Your task to perform on an android device: Show the shopping cart on newegg.com. Add beats solo 3 to the cart on newegg.com, then select checkout. Image 0: 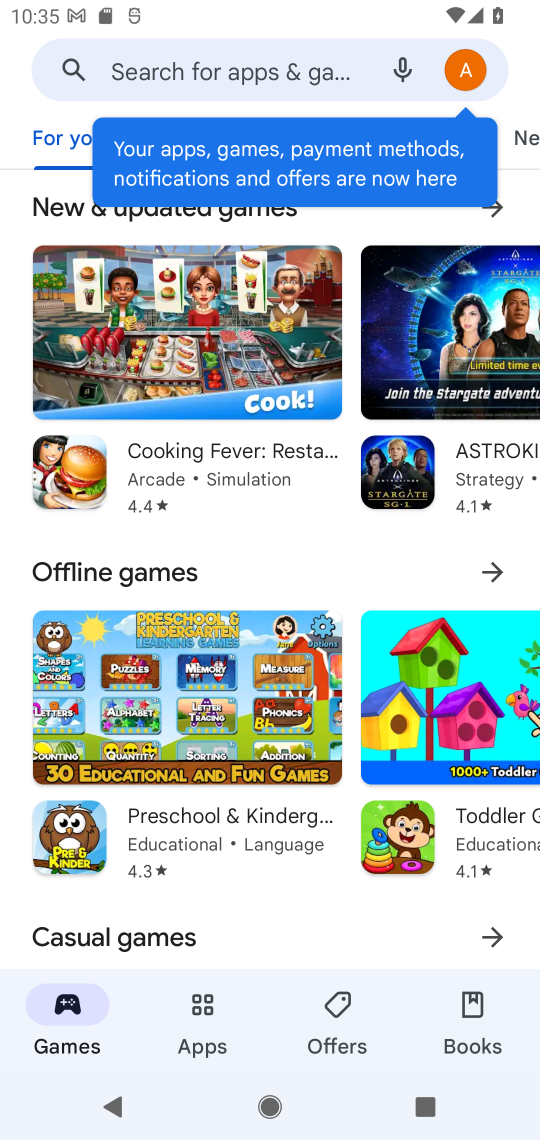
Step 0: press home button
Your task to perform on an android device: Show the shopping cart on newegg.com. Add beats solo 3 to the cart on newegg.com, then select checkout. Image 1: 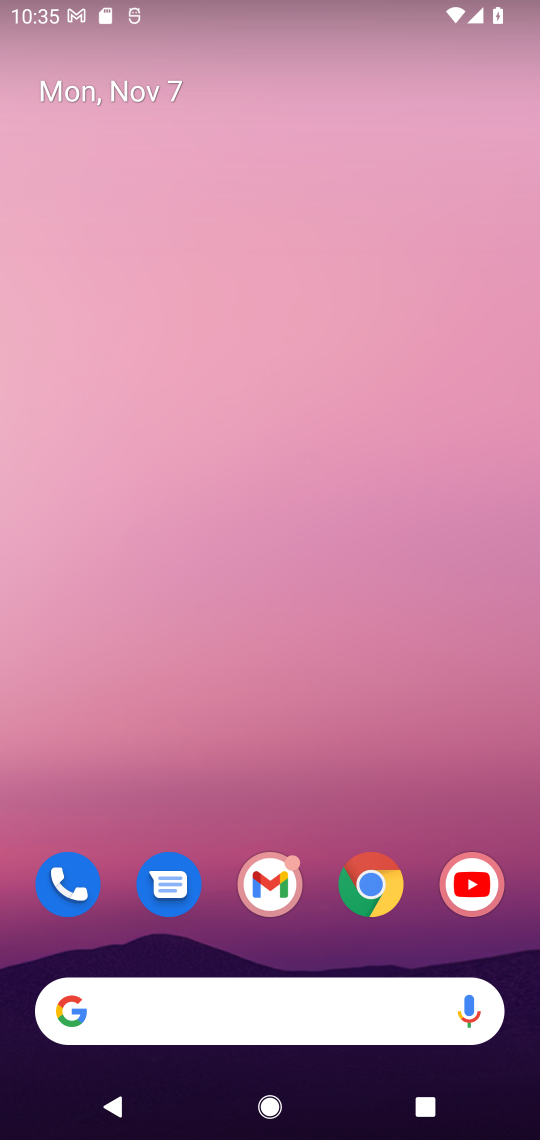
Step 1: click (380, 875)
Your task to perform on an android device: Show the shopping cart on newegg.com. Add beats solo 3 to the cart on newegg.com, then select checkout. Image 2: 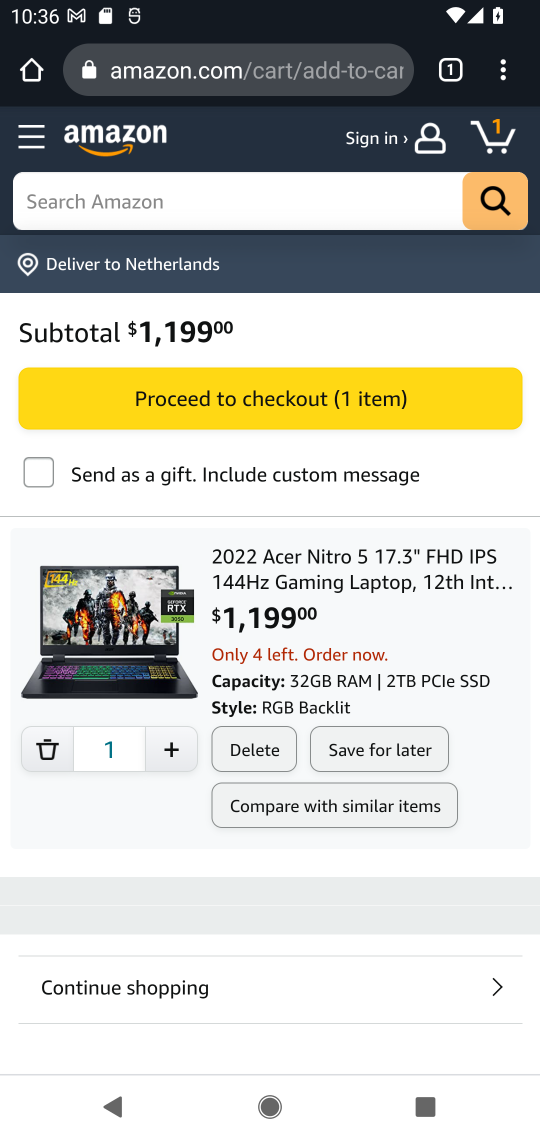
Step 2: click (37, 71)
Your task to perform on an android device: Show the shopping cart on newegg.com. Add beats solo 3 to the cart on newegg.com, then select checkout. Image 3: 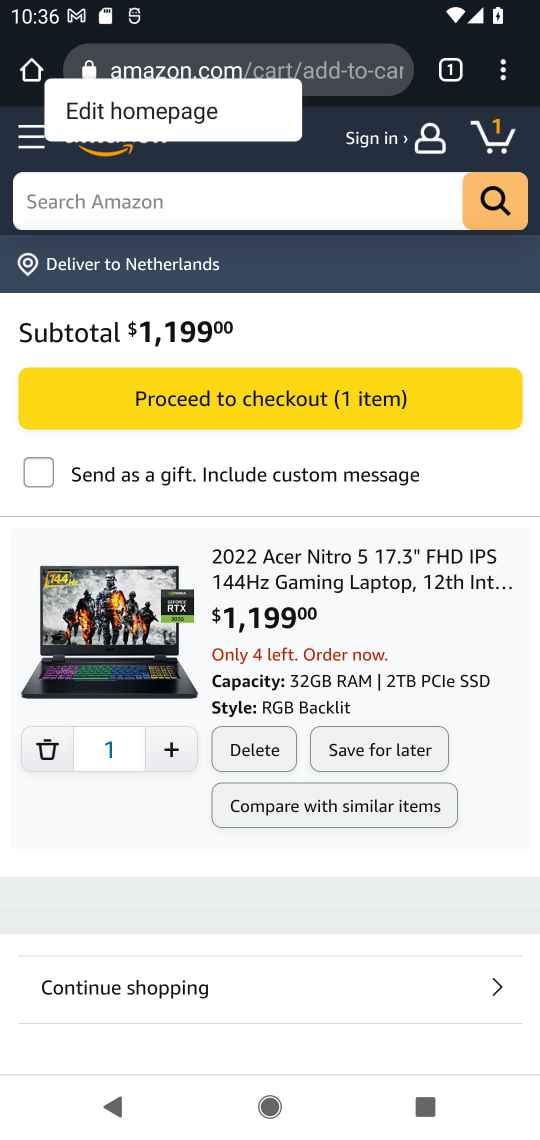
Step 3: click (154, 60)
Your task to perform on an android device: Show the shopping cart on newegg.com. Add beats solo 3 to the cart on newegg.com, then select checkout. Image 4: 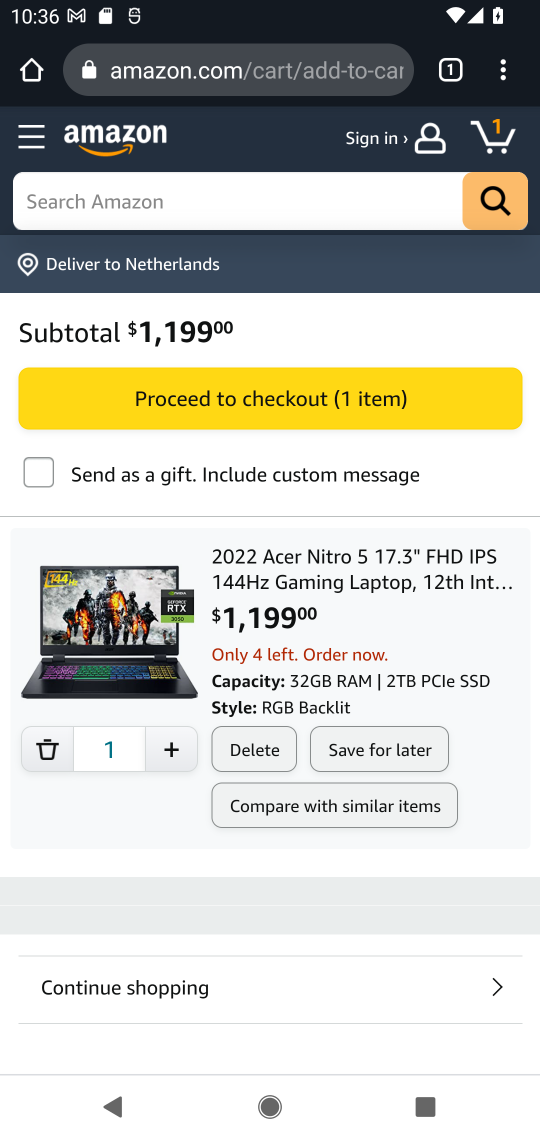
Step 4: click (155, 59)
Your task to perform on an android device: Show the shopping cart on newegg.com. Add beats solo 3 to the cart on newegg.com, then select checkout. Image 5: 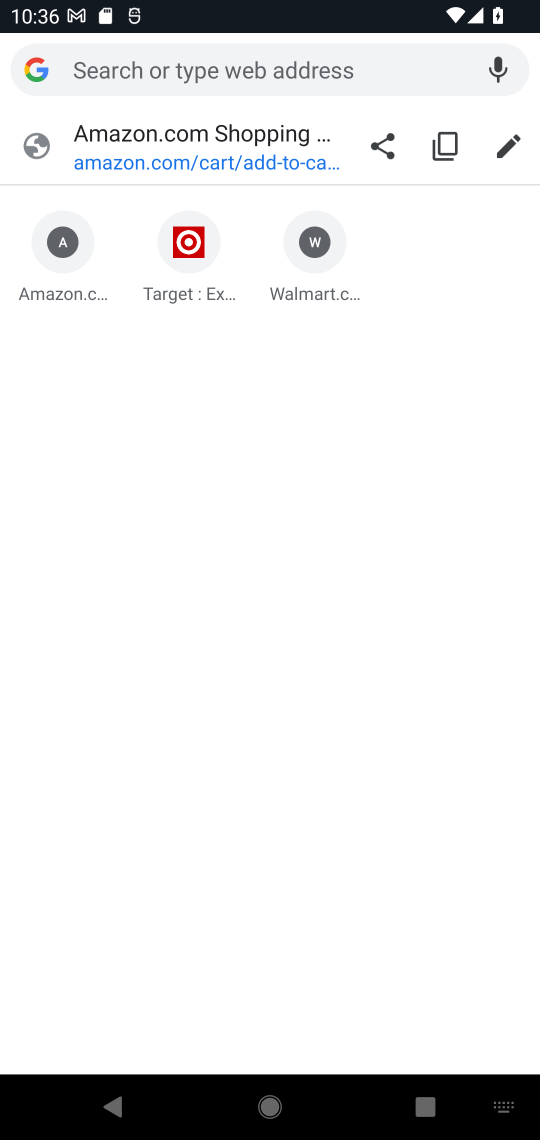
Step 5: click (190, 68)
Your task to perform on an android device: Show the shopping cart on newegg.com. Add beats solo 3 to the cart on newegg.com, then select checkout. Image 6: 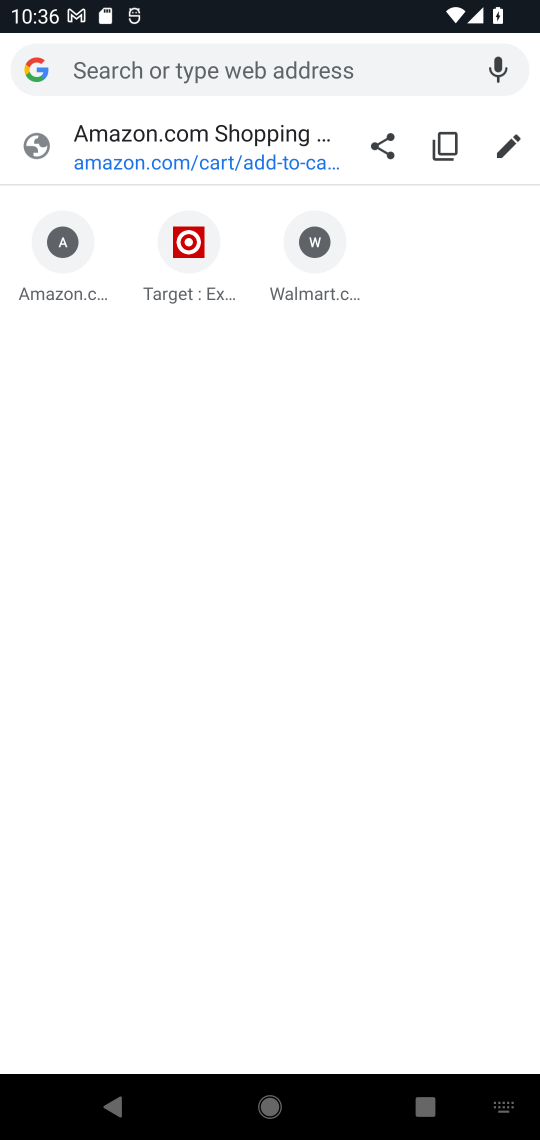
Step 6: type "newegg.com"
Your task to perform on an android device: Show the shopping cart on newegg.com. Add beats solo 3 to the cart on newegg.com, then select checkout. Image 7: 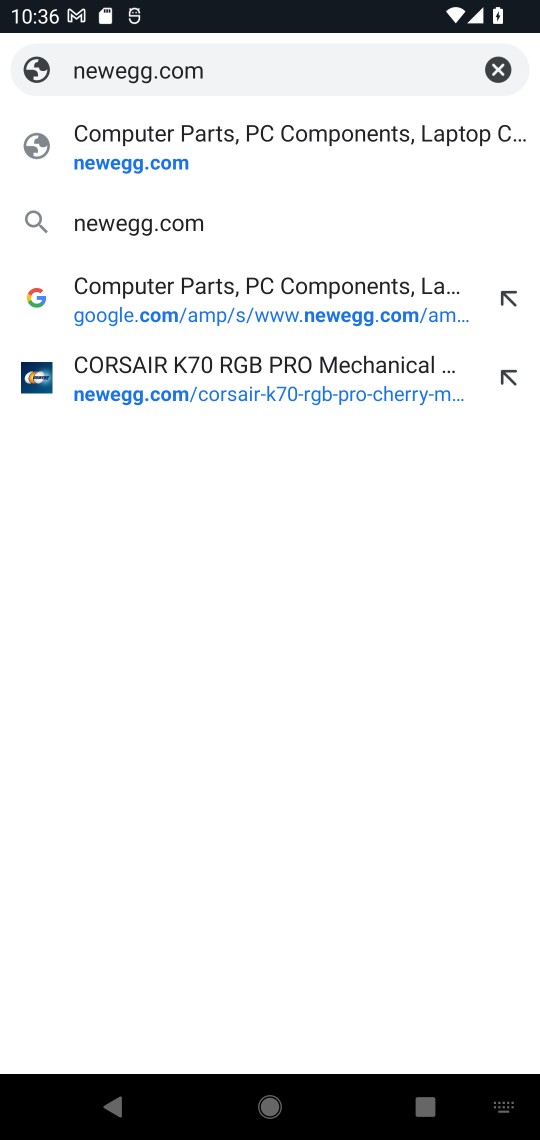
Step 7: click (180, 218)
Your task to perform on an android device: Show the shopping cart on newegg.com. Add beats solo 3 to the cart on newegg.com, then select checkout. Image 8: 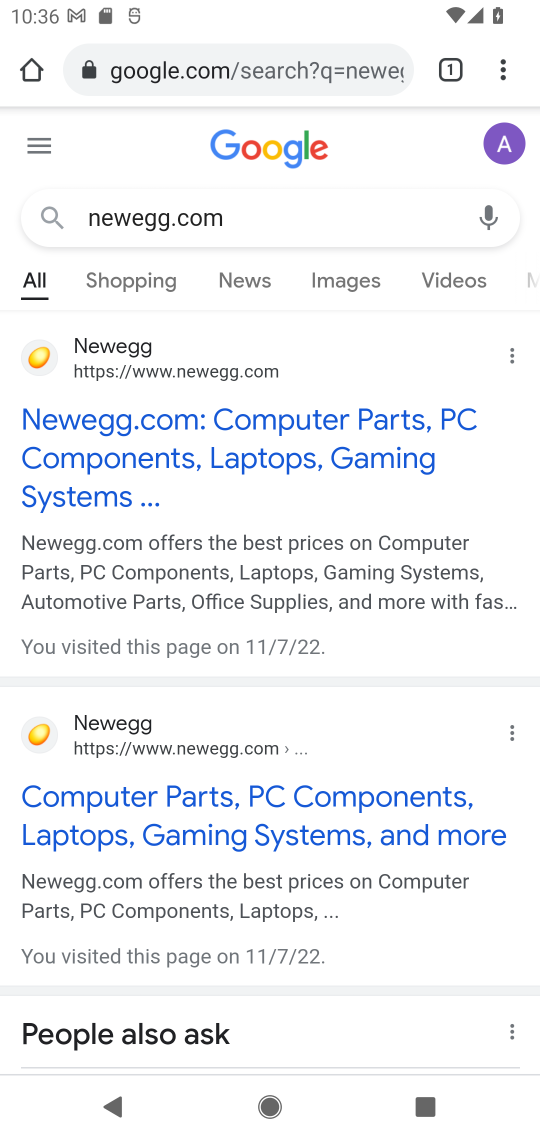
Step 8: click (227, 375)
Your task to perform on an android device: Show the shopping cart on newegg.com. Add beats solo 3 to the cart on newegg.com, then select checkout. Image 9: 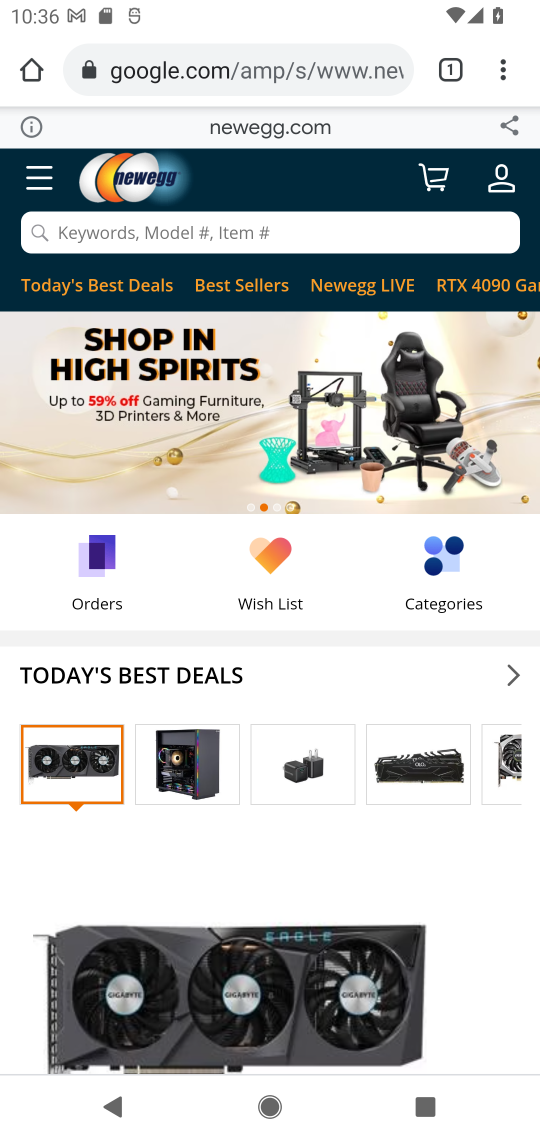
Step 9: click (434, 186)
Your task to perform on an android device: Show the shopping cart on newegg.com. Add beats solo 3 to the cart on newegg.com, then select checkout. Image 10: 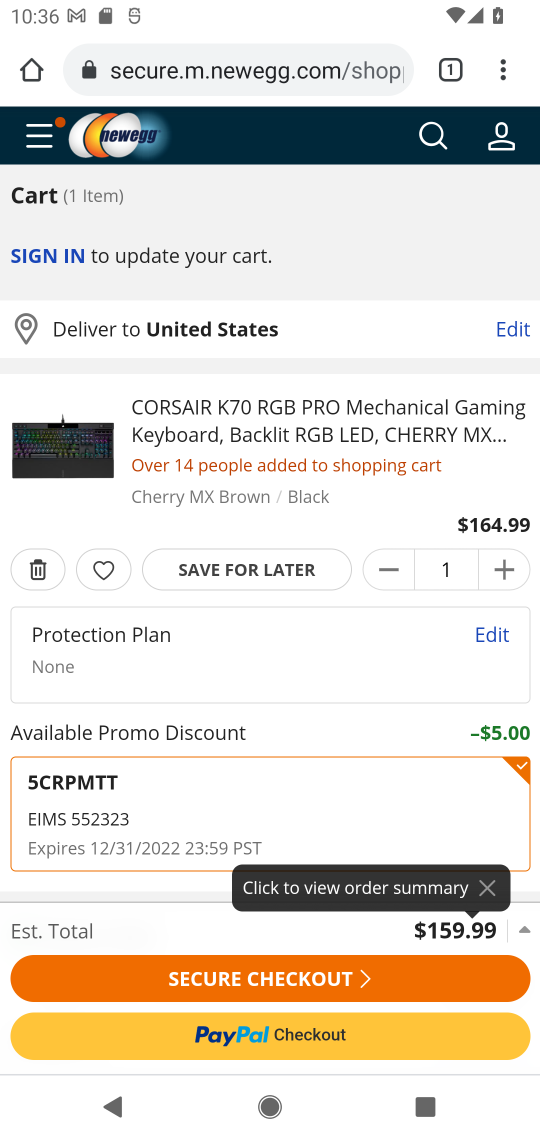
Step 10: click (442, 142)
Your task to perform on an android device: Show the shopping cart on newegg.com. Add beats solo 3 to the cart on newegg.com, then select checkout. Image 11: 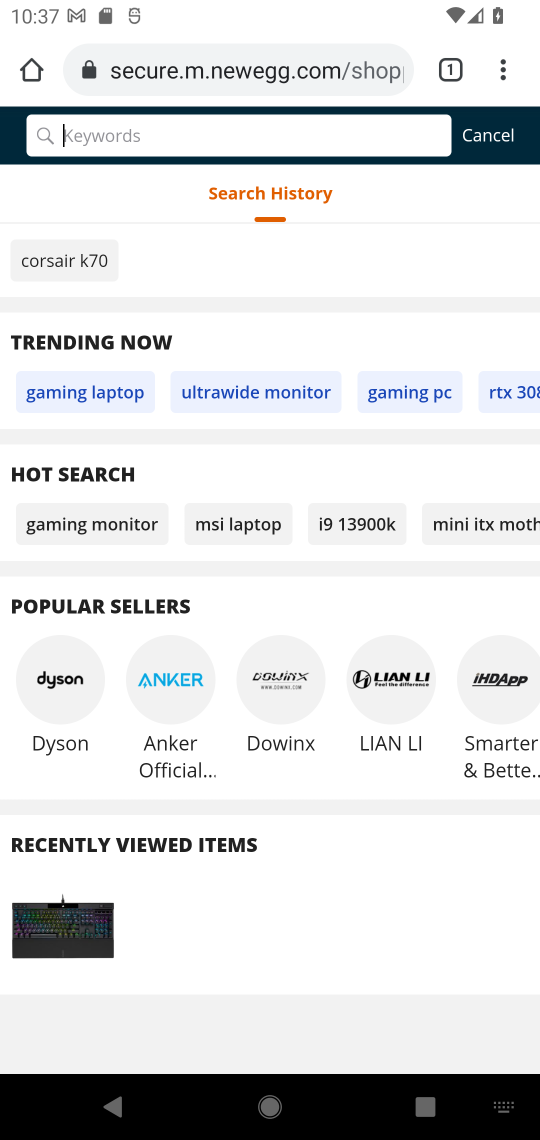
Step 11: type "beats solo 3"
Your task to perform on an android device: Show the shopping cart on newegg.com. Add beats solo 3 to the cart on newegg.com, then select checkout. Image 12: 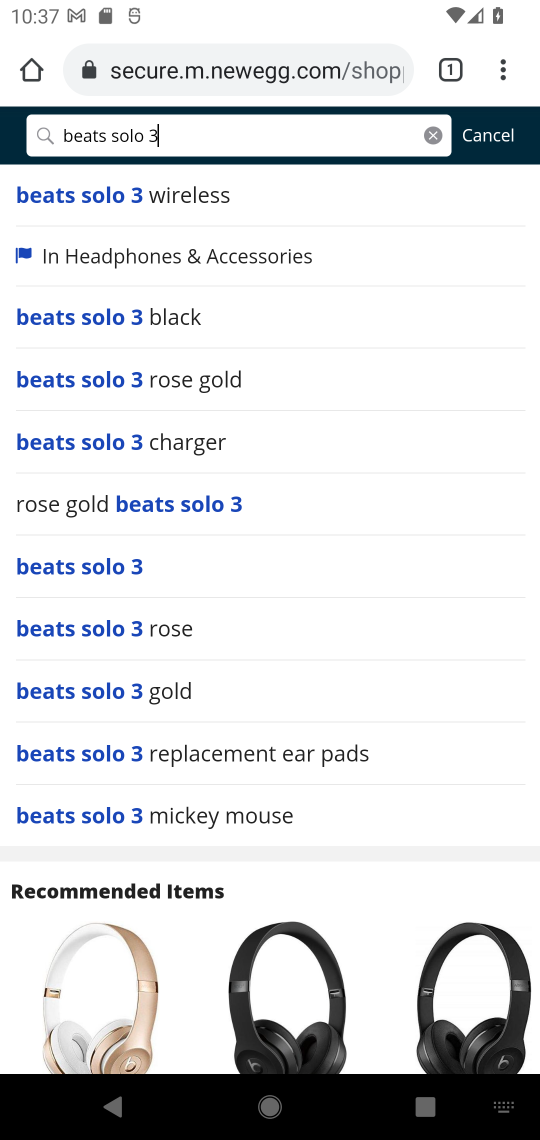
Step 12: click (126, 573)
Your task to perform on an android device: Show the shopping cart on newegg.com. Add beats solo 3 to the cart on newegg.com, then select checkout. Image 13: 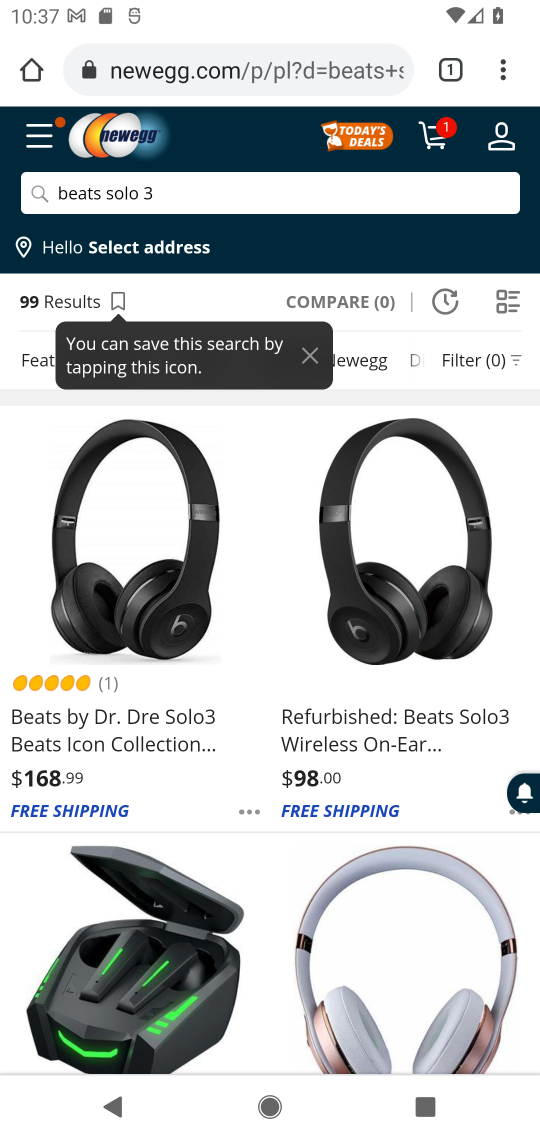
Step 13: drag from (306, 805) to (377, 327)
Your task to perform on an android device: Show the shopping cart on newegg.com. Add beats solo 3 to the cart on newegg.com, then select checkout. Image 14: 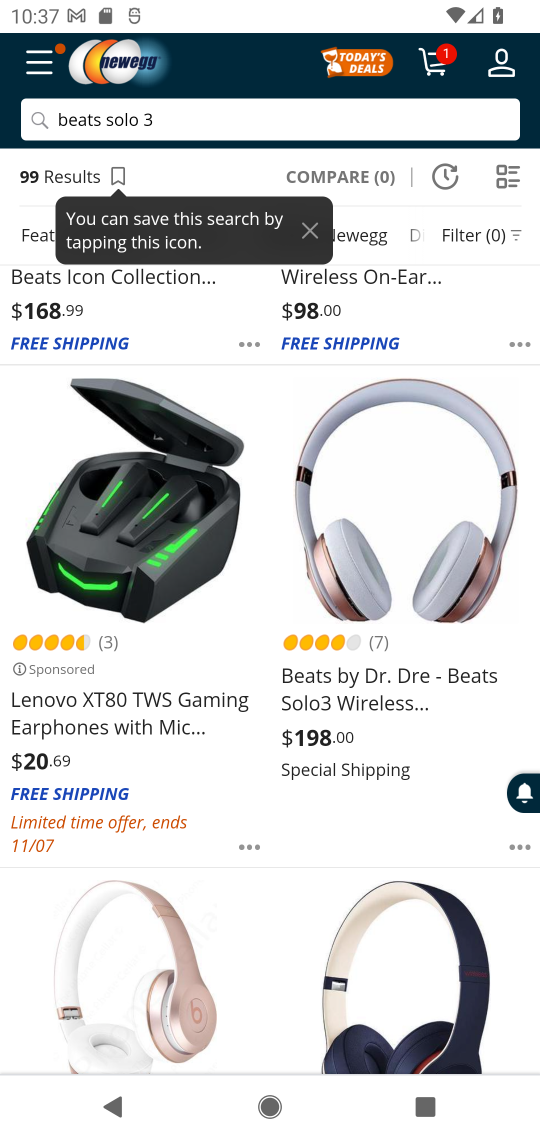
Step 14: drag from (266, 701) to (309, 447)
Your task to perform on an android device: Show the shopping cart on newegg.com. Add beats solo 3 to the cart on newegg.com, then select checkout. Image 15: 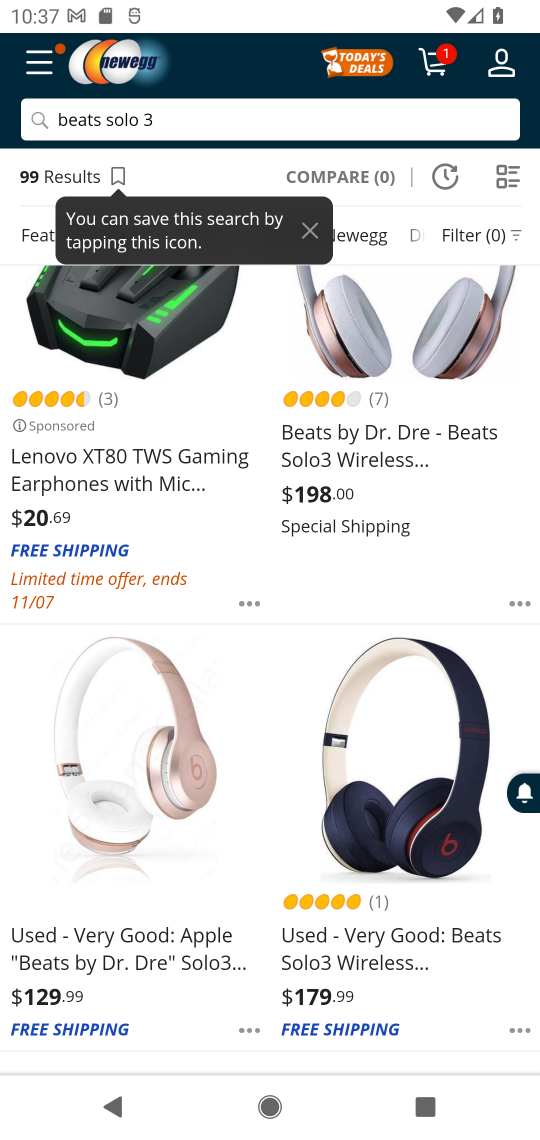
Step 15: drag from (251, 764) to (363, 301)
Your task to perform on an android device: Show the shopping cart on newegg.com. Add beats solo 3 to the cart on newegg.com, then select checkout. Image 16: 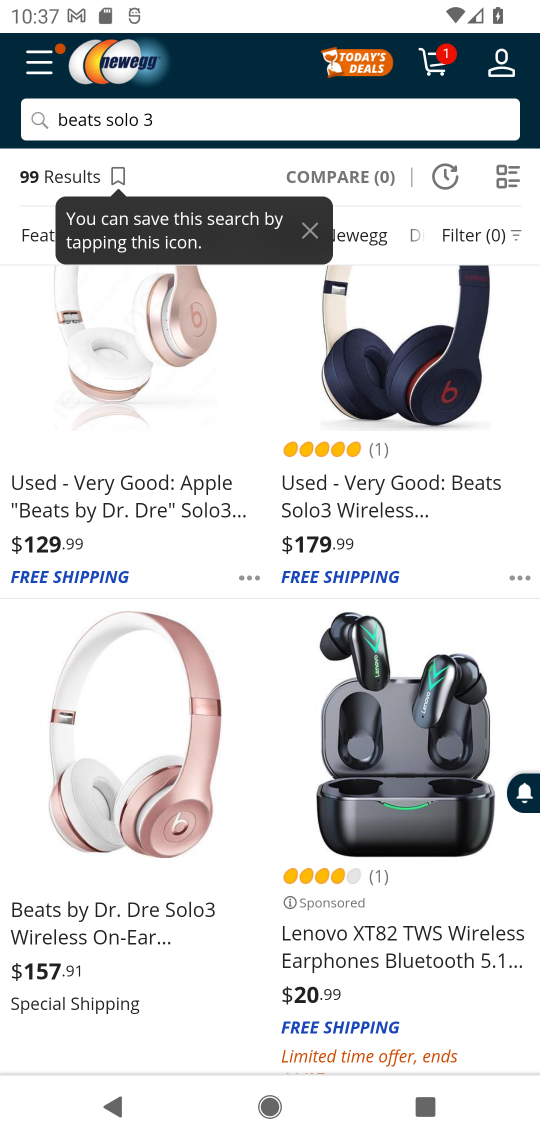
Step 16: drag from (272, 683) to (296, 339)
Your task to perform on an android device: Show the shopping cart on newegg.com. Add beats solo 3 to the cart on newegg.com, then select checkout. Image 17: 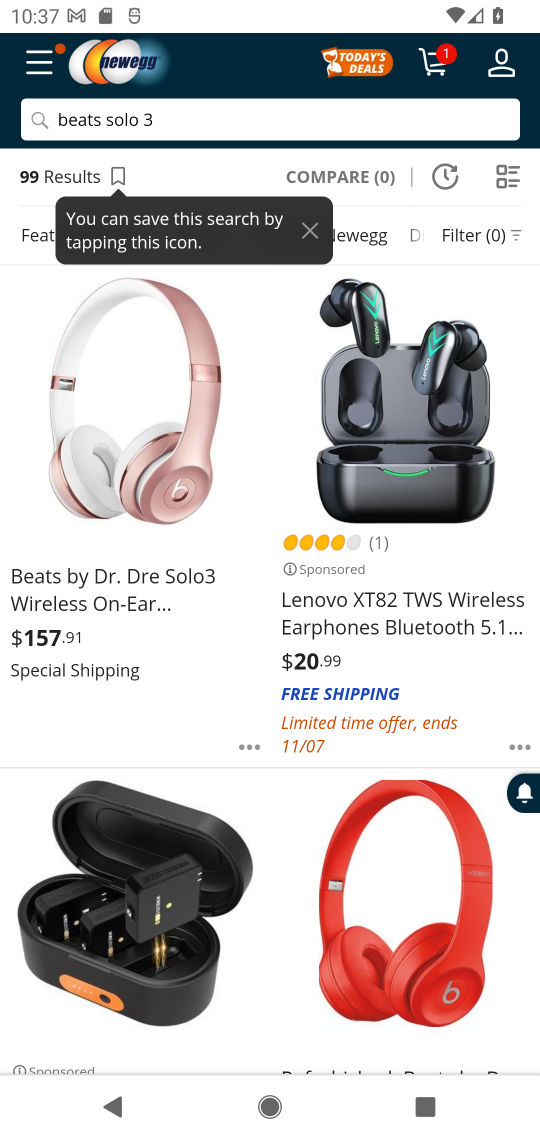
Step 17: drag from (289, 693) to (378, 374)
Your task to perform on an android device: Show the shopping cart on newegg.com. Add beats solo 3 to the cart on newegg.com, then select checkout. Image 18: 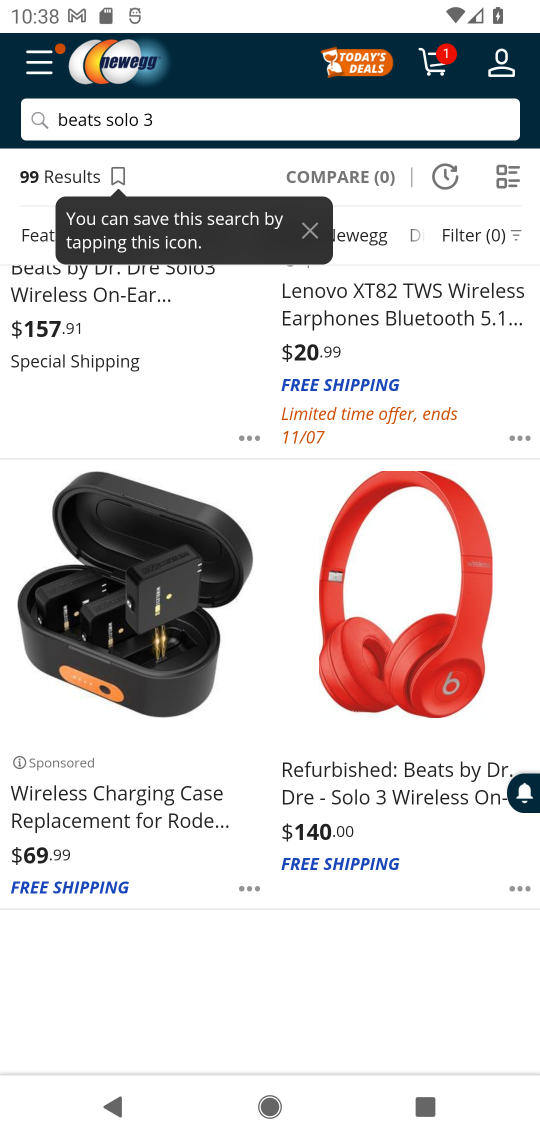
Step 18: drag from (299, 734) to (412, 322)
Your task to perform on an android device: Show the shopping cart on newegg.com. Add beats solo 3 to the cart on newegg.com, then select checkout. Image 19: 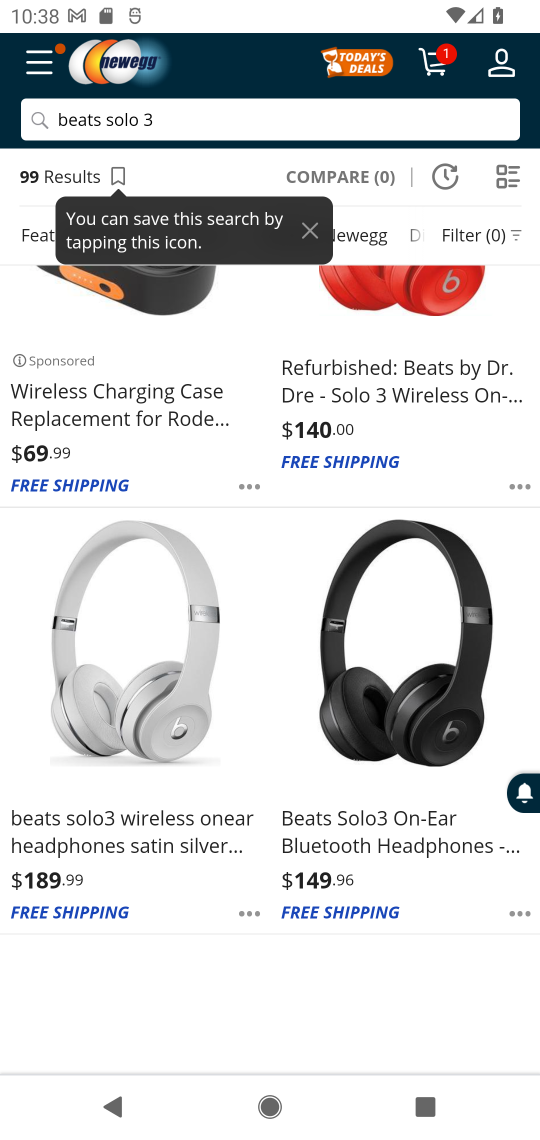
Step 19: click (104, 595)
Your task to perform on an android device: Show the shopping cart on newegg.com. Add beats solo 3 to the cart on newegg.com, then select checkout. Image 20: 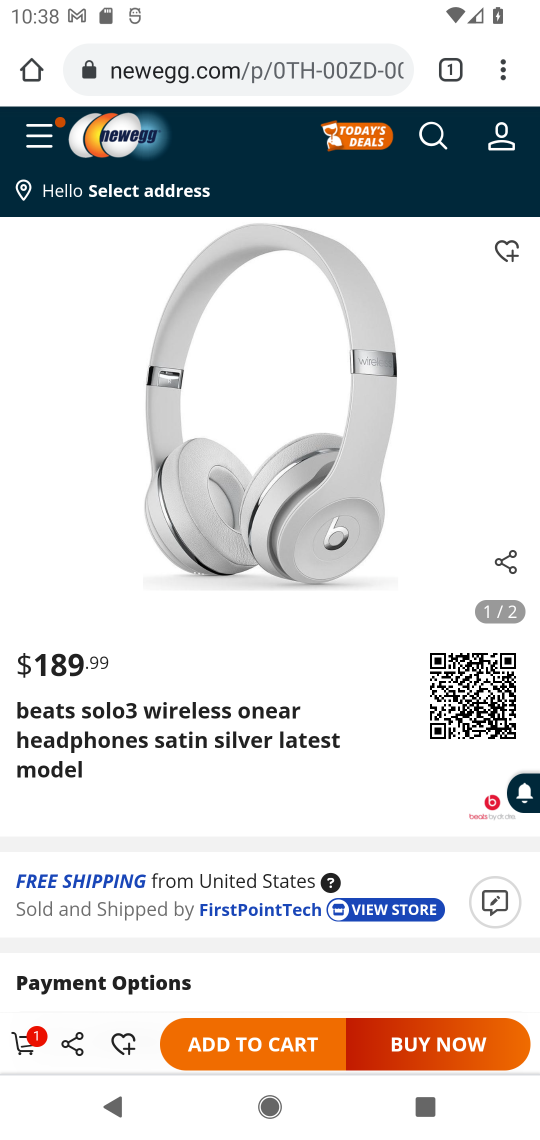
Step 20: click (268, 1033)
Your task to perform on an android device: Show the shopping cart on newegg.com. Add beats solo 3 to the cart on newegg.com, then select checkout. Image 21: 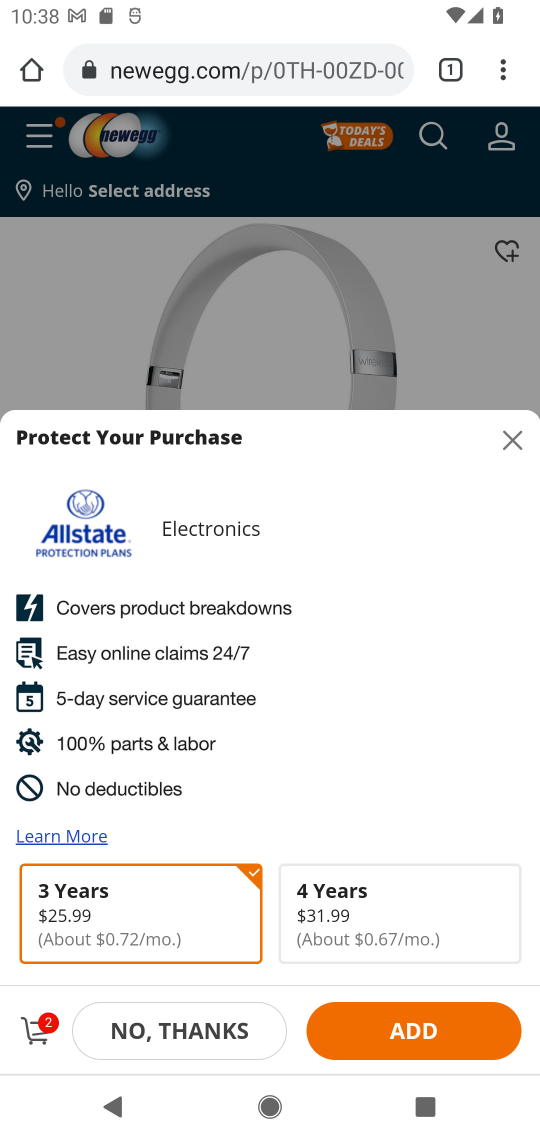
Step 21: click (519, 452)
Your task to perform on an android device: Show the shopping cart on newegg.com. Add beats solo 3 to the cart on newegg.com, then select checkout. Image 22: 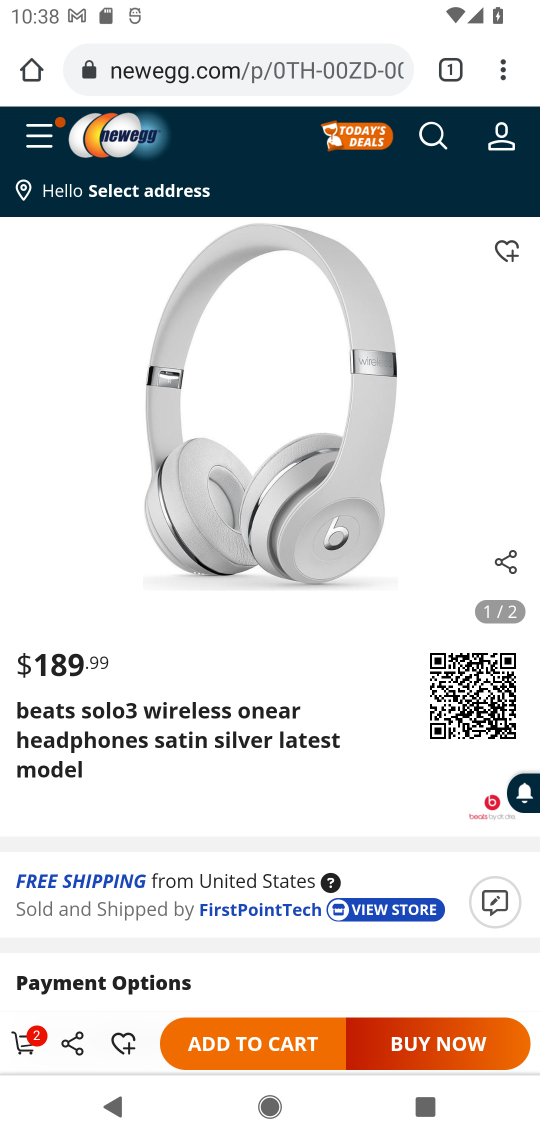
Step 22: click (16, 1037)
Your task to perform on an android device: Show the shopping cart on newegg.com. Add beats solo 3 to the cart on newegg.com, then select checkout. Image 23: 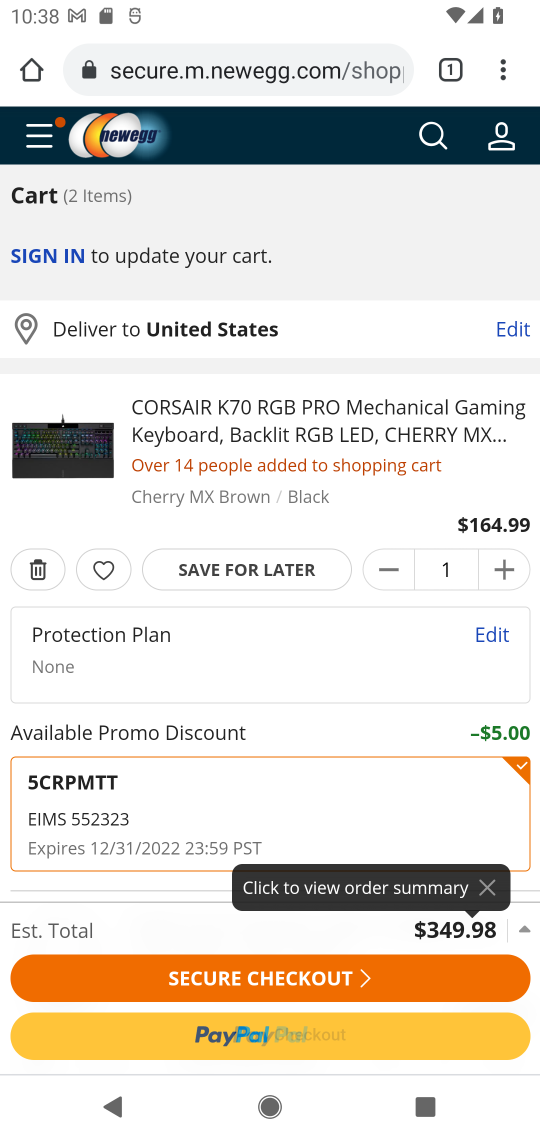
Step 23: click (261, 976)
Your task to perform on an android device: Show the shopping cart on newegg.com. Add beats solo 3 to the cart on newegg.com, then select checkout. Image 24: 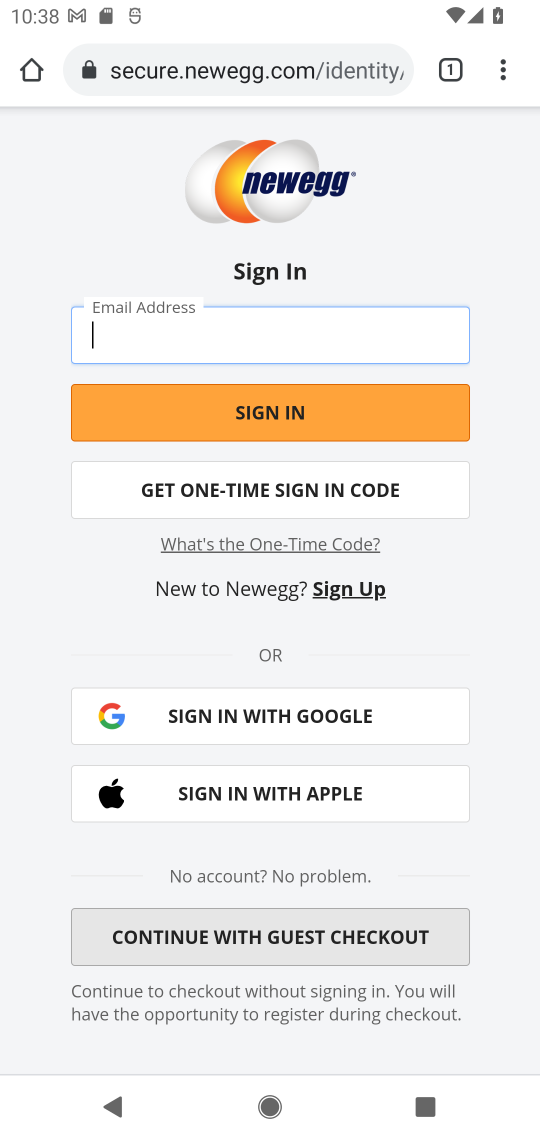
Step 24: task complete